Your task to perform on an android device: refresh tabs in the chrome app Image 0: 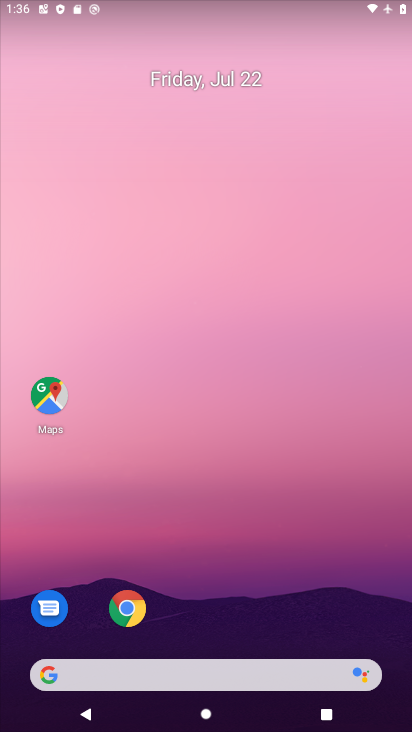
Step 0: click (126, 612)
Your task to perform on an android device: refresh tabs in the chrome app Image 1: 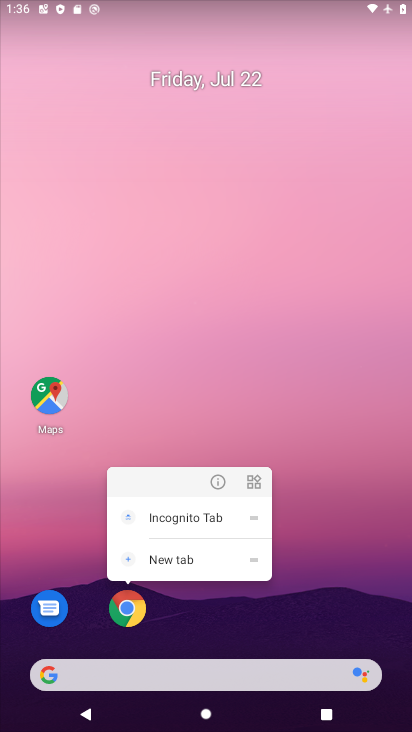
Step 1: click (125, 612)
Your task to perform on an android device: refresh tabs in the chrome app Image 2: 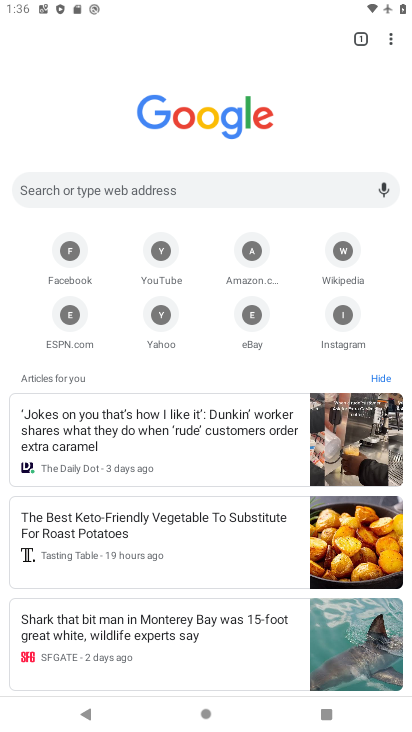
Step 2: click (390, 36)
Your task to perform on an android device: refresh tabs in the chrome app Image 3: 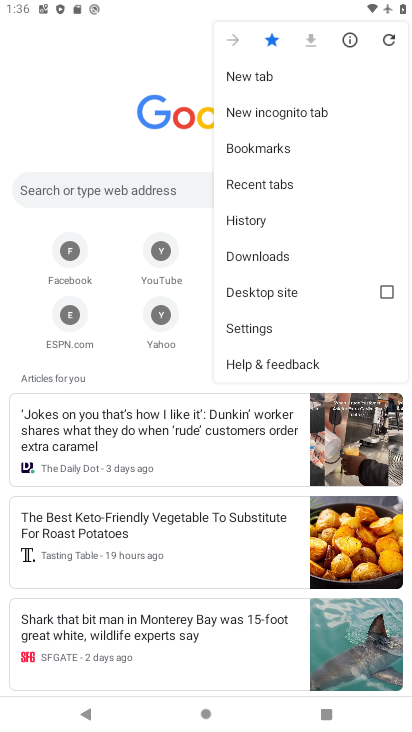
Step 3: click (390, 36)
Your task to perform on an android device: refresh tabs in the chrome app Image 4: 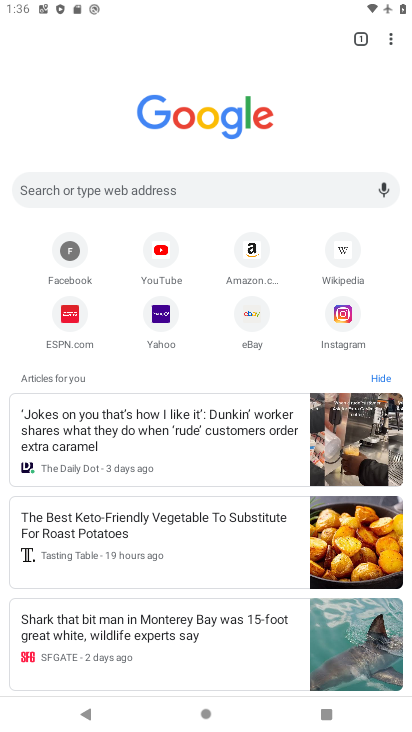
Step 4: task complete